Your task to perform on an android device: Open my contact list Image 0: 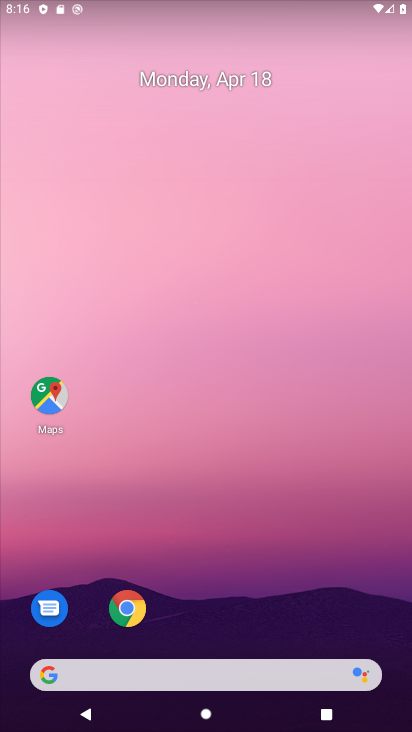
Step 0: drag from (206, 561) to (198, 41)
Your task to perform on an android device: Open my contact list Image 1: 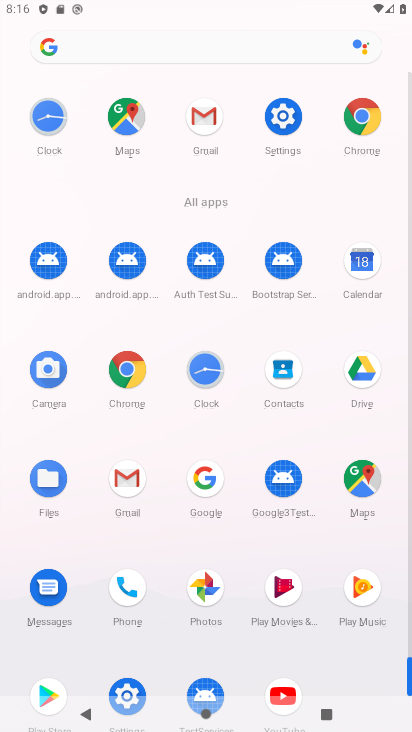
Step 1: drag from (171, 555) to (214, 435)
Your task to perform on an android device: Open my contact list Image 2: 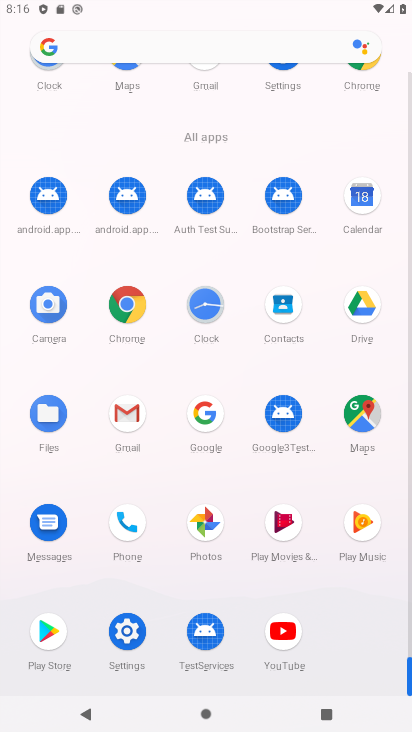
Step 2: click (283, 306)
Your task to perform on an android device: Open my contact list Image 3: 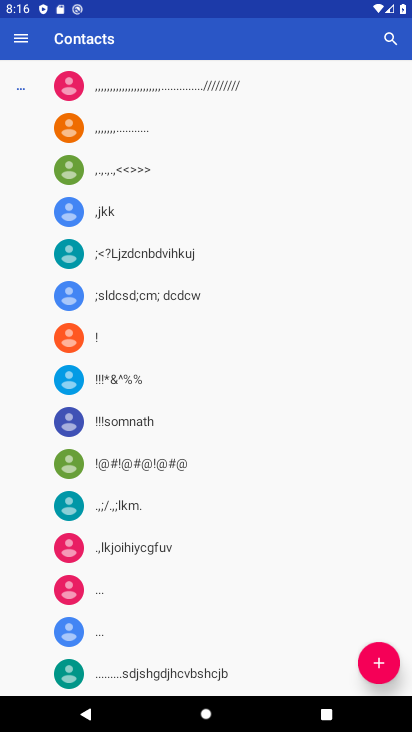
Step 3: task complete